Your task to perform on an android device: turn off smart reply in the gmail app Image 0: 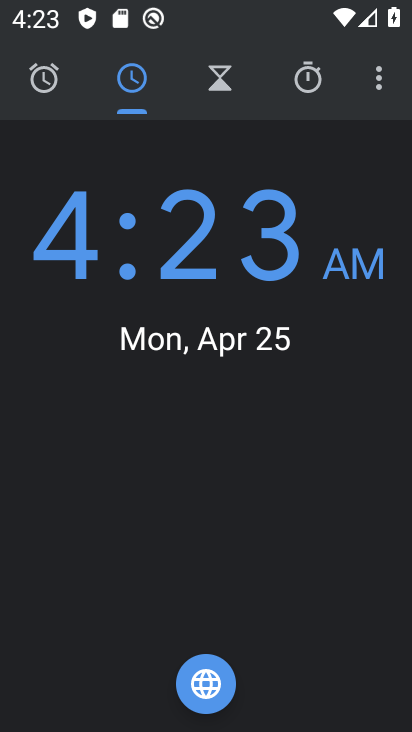
Step 0: press home button
Your task to perform on an android device: turn off smart reply in the gmail app Image 1: 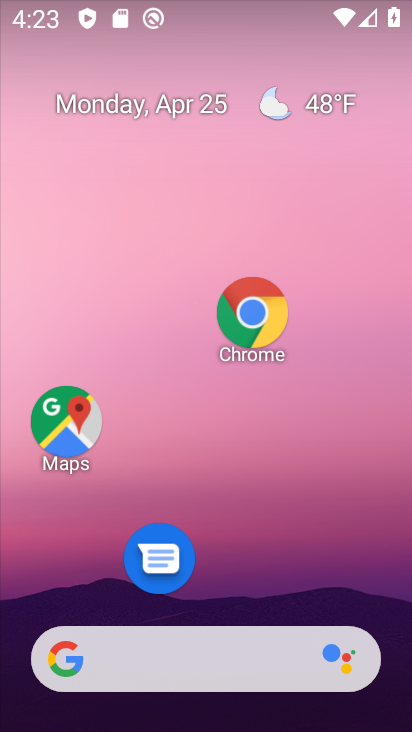
Step 1: drag from (354, 443) to (347, 52)
Your task to perform on an android device: turn off smart reply in the gmail app Image 2: 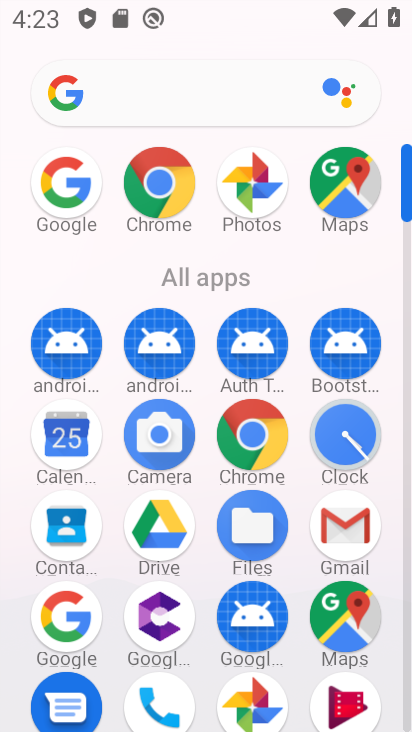
Step 2: click (329, 526)
Your task to perform on an android device: turn off smart reply in the gmail app Image 3: 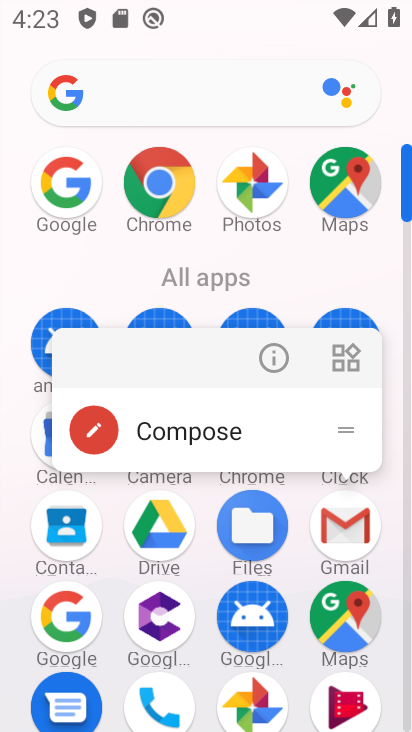
Step 3: click (329, 522)
Your task to perform on an android device: turn off smart reply in the gmail app Image 4: 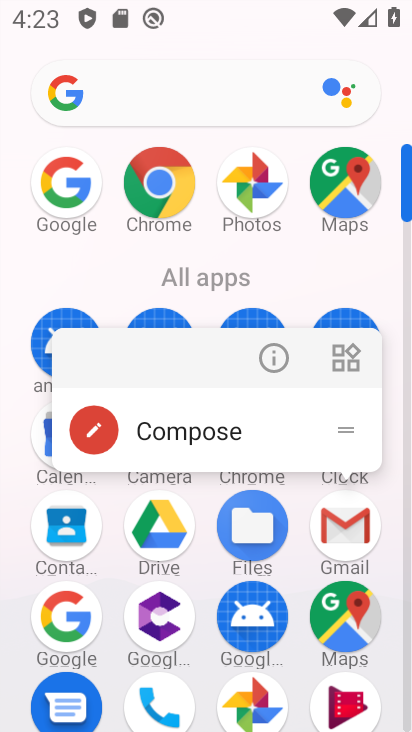
Step 4: click (350, 513)
Your task to perform on an android device: turn off smart reply in the gmail app Image 5: 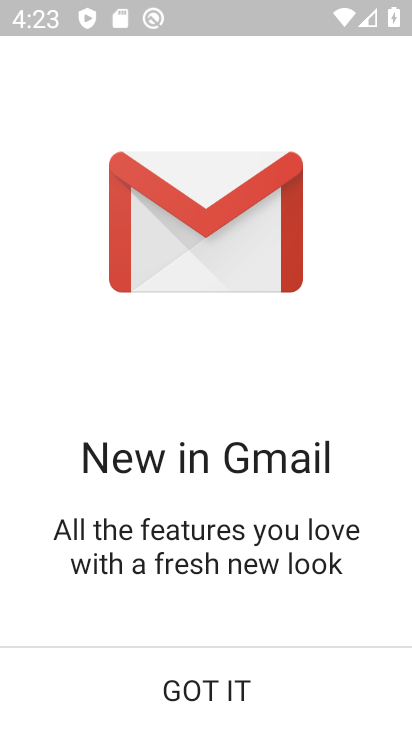
Step 5: click (203, 704)
Your task to perform on an android device: turn off smart reply in the gmail app Image 6: 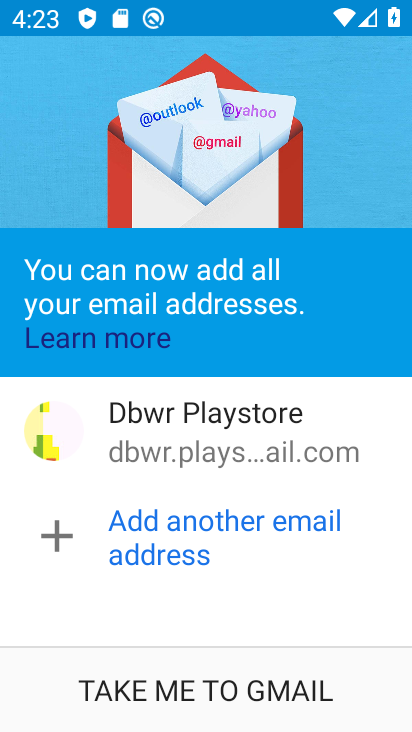
Step 6: click (197, 690)
Your task to perform on an android device: turn off smart reply in the gmail app Image 7: 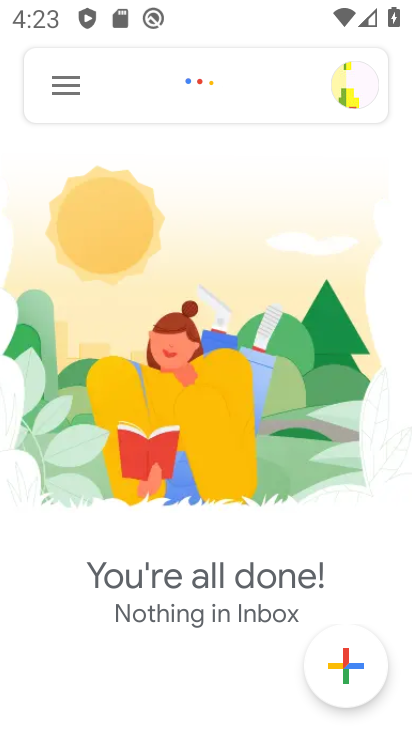
Step 7: click (70, 84)
Your task to perform on an android device: turn off smart reply in the gmail app Image 8: 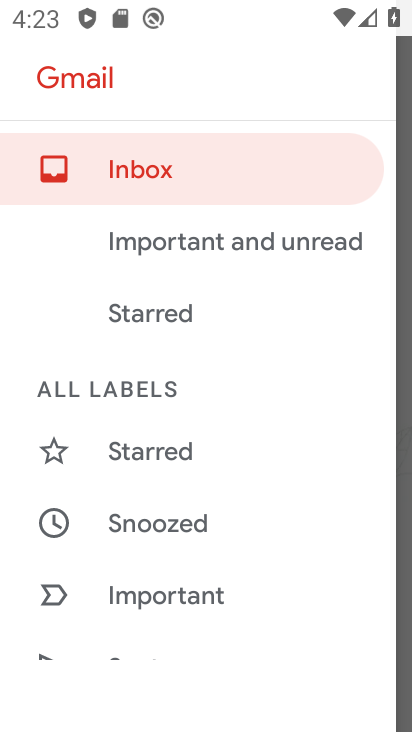
Step 8: drag from (220, 575) to (237, 168)
Your task to perform on an android device: turn off smart reply in the gmail app Image 9: 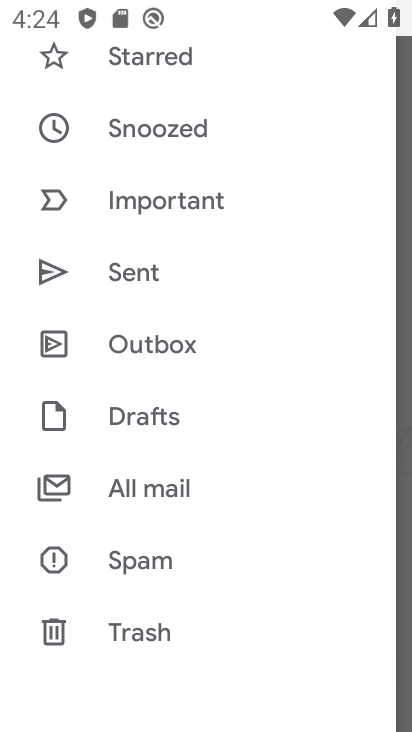
Step 9: drag from (150, 561) to (206, 205)
Your task to perform on an android device: turn off smart reply in the gmail app Image 10: 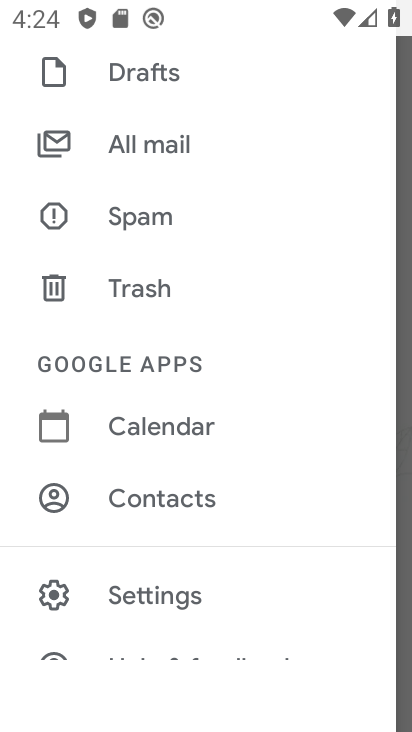
Step 10: drag from (232, 607) to (225, 186)
Your task to perform on an android device: turn off smart reply in the gmail app Image 11: 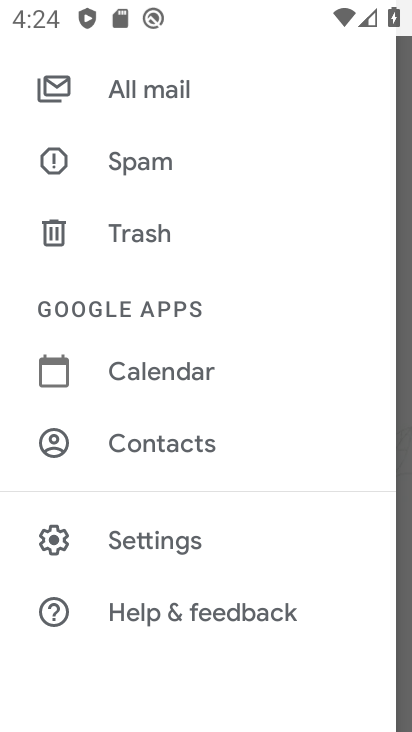
Step 11: click (176, 543)
Your task to perform on an android device: turn off smart reply in the gmail app Image 12: 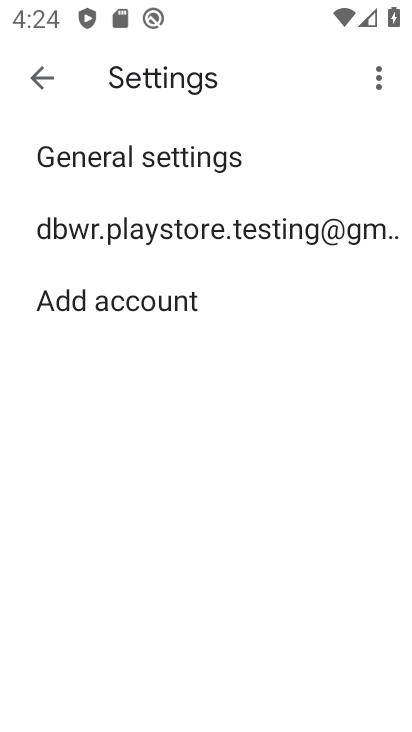
Step 12: click (171, 252)
Your task to perform on an android device: turn off smart reply in the gmail app Image 13: 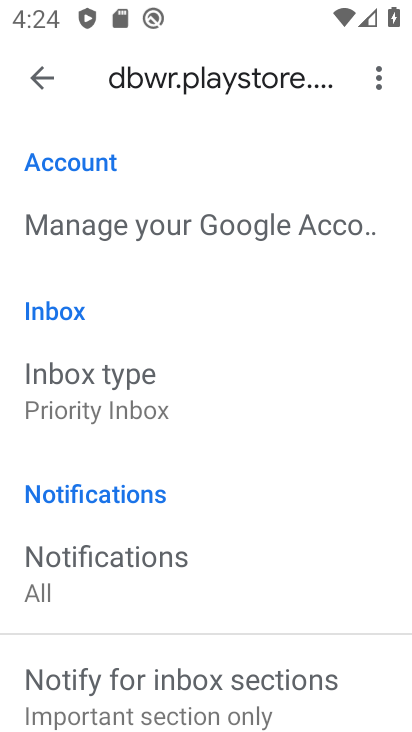
Step 13: drag from (207, 570) to (225, 247)
Your task to perform on an android device: turn off smart reply in the gmail app Image 14: 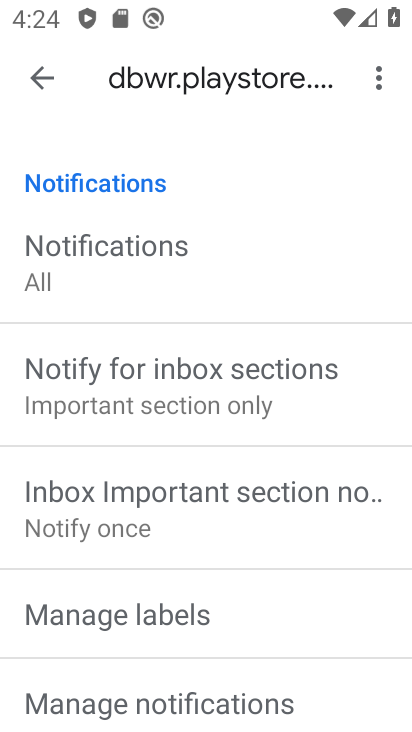
Step 14: drag from (216, 571) to (333, 225)
Your task to perform on an android device: turn off smart reply in the gmail app Image 15: 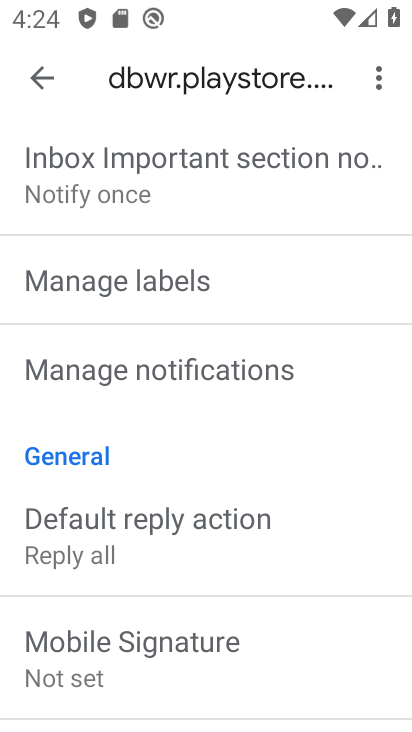
Step 15: drag from (160, 620) to (138, 254)
Your task to perform on an android device: turn off smart reply in the gmail app Image 16: 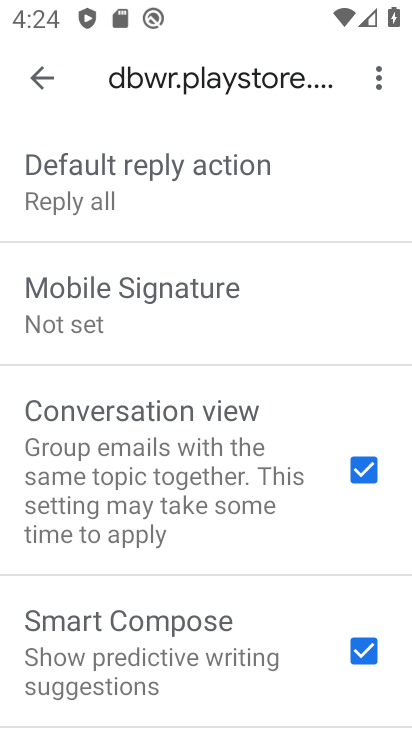
Step 16: drag from (145, 509) to (159, 268)
Your task to perform on an android device: turn off smart reply in the gmail app Image 17: 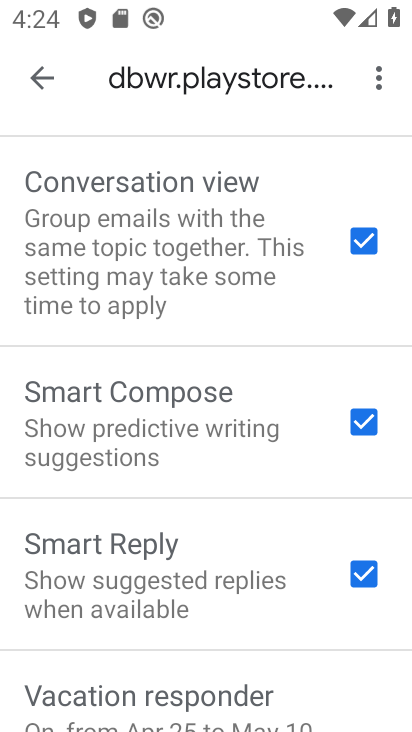
Step 17: drag from (223, 598) to (184, 169)
Your task to perform on an android device: turn off smart reply in the gmail app Image 18: 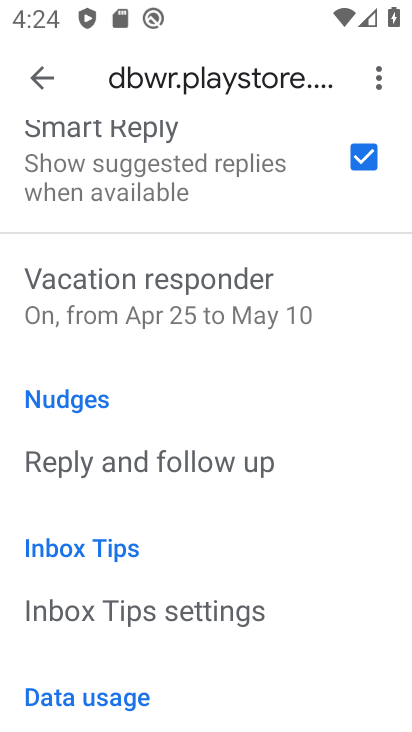
Step 18: drag from (184, 170) to (196, 494)
Your task to perform on an android device: turn off smart reply in the gmail app Image 19: 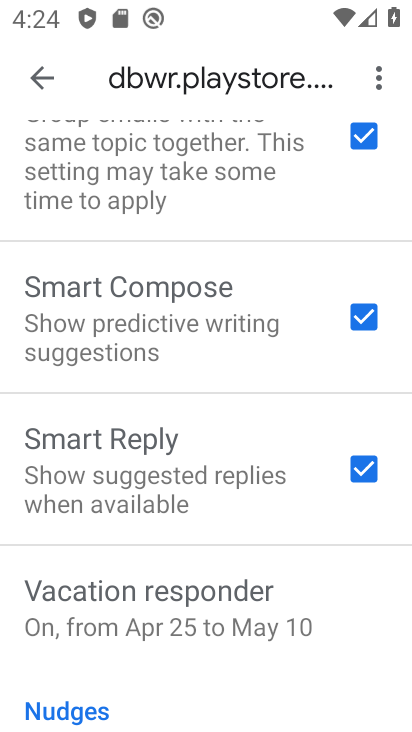
Step 19: click (345, 468)
Your task to perform on an android device: turn off smart reply in the gmail app Image 20: 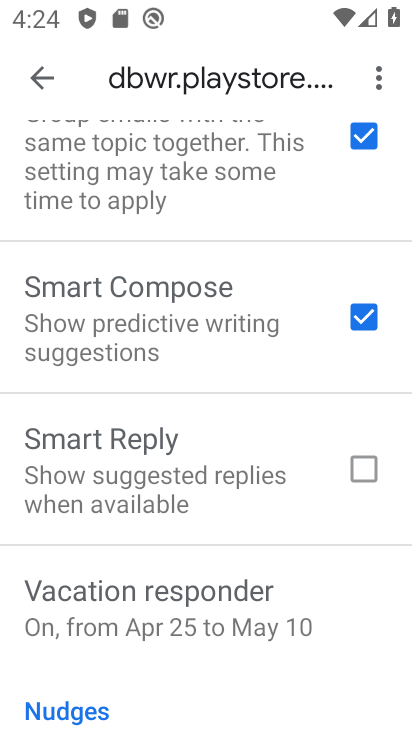
Step 20: task complete